Your task to perform on an android device: toggle improve location accuracy Image 0: 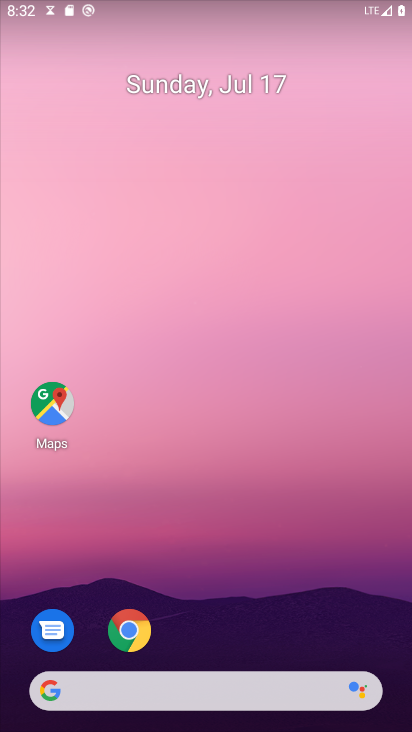
Step 0: drag from (213, 609) to (375, 430)
Your task to perform on an android device: toggle improve location accuracy Image 1: 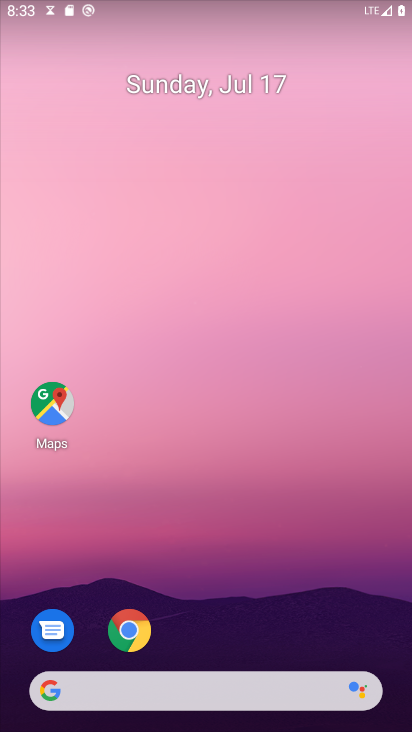
Step 1: drag from (261, 650) to (99, 12)
Your task to perform on an android device: toggle improve location accuracy Image 2: 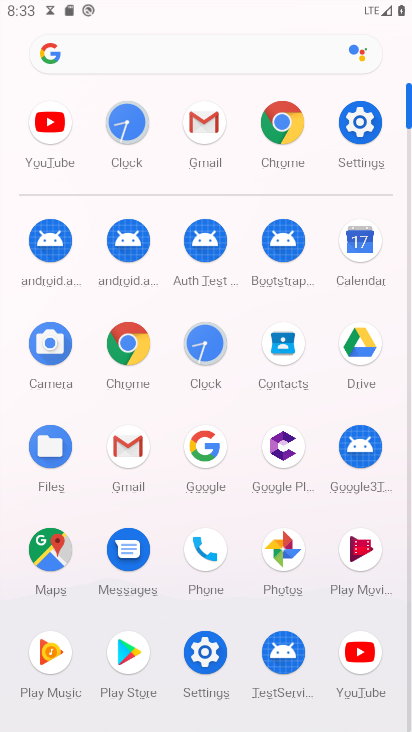
Step 2: click (212, 659)
Your task to perform on an android device: toggle improve location accuracy Image 3: 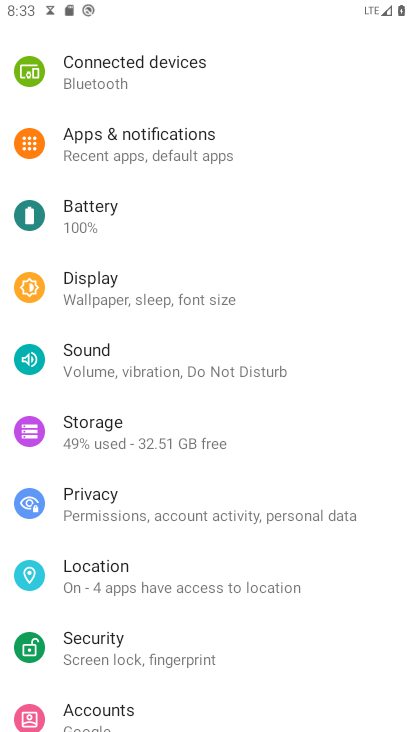
Step 3: click (128, 590)
Your task to perform on an android device: toggle improve location accuracy Image 4: 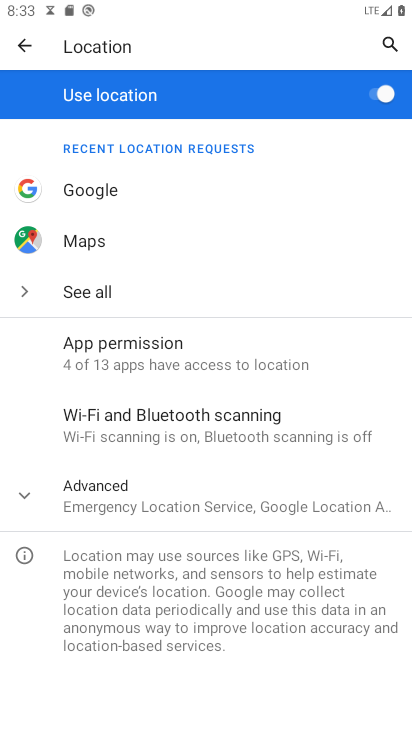
Step 4: click (161, 507)
Your task to perform on an android device: toggle improve location accuracy Image 5: 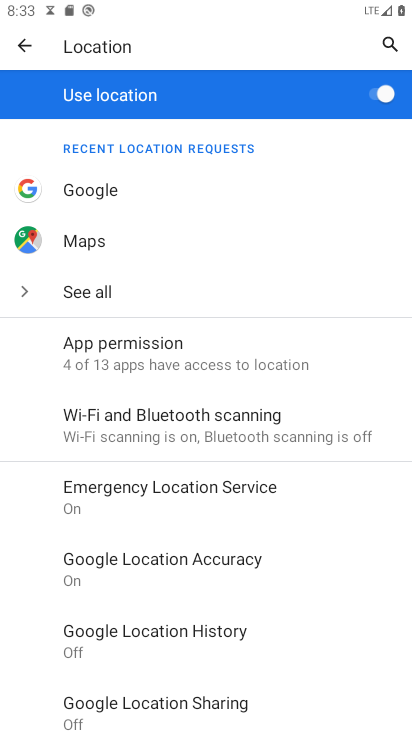
Step 5: click (171, 571)
Your task to perform on an android device: toggle improve location accuracy Image 6: 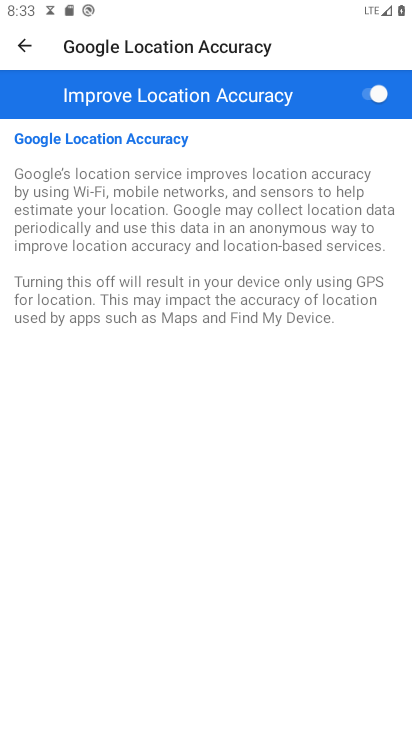
Step 6: click (341, 103)
Your task to perform on an android device: toggle improve location accuracy Image 7: 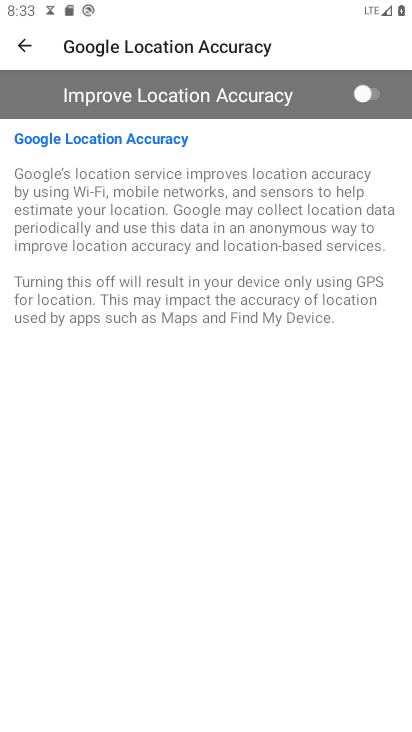
Step 7: task complete